Your task to perform on an android device: open app "Move to iOS" Image 0: 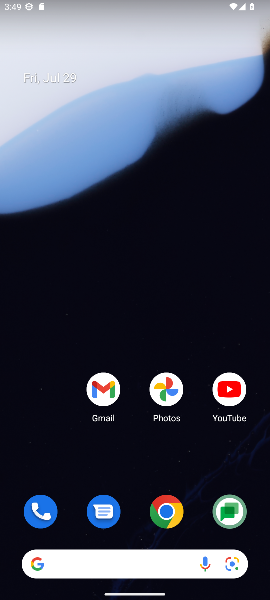
Step 0: drag from (15, 567) to (187, 73)
Your task to perform on an android device: open app "Move to iOS" Image 1: 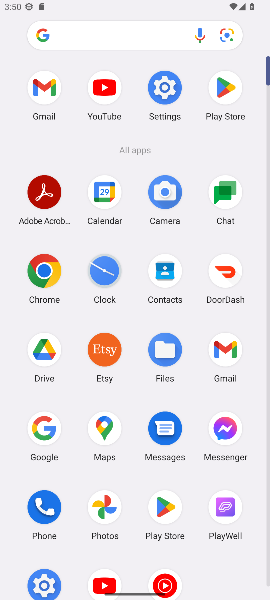
Step 1: click (216, 93)
Your task to perform on an android device: open app "Move to iOS" Image 2: 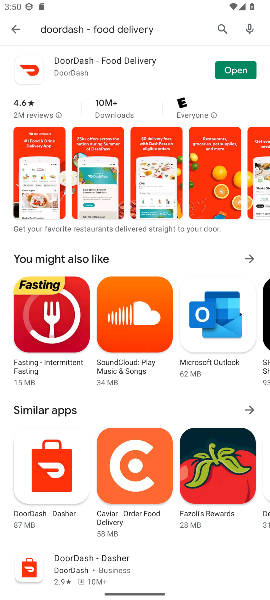
Step 2: click (16, 28)
Your task to perform on an android device: open app "Move to iOS" Image 3: 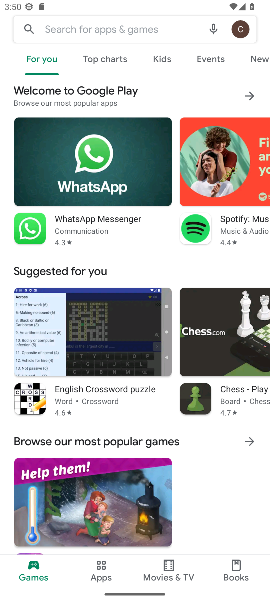
Step 3: click (69, 12)
Your task to perform on an android device: open app "Move to iOS" Image 4: 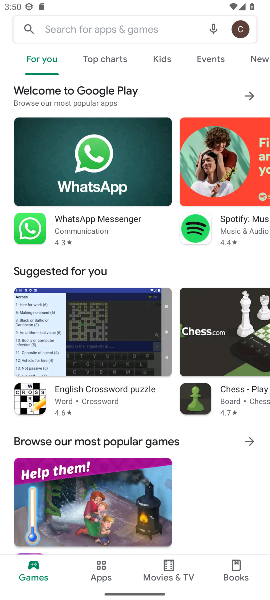
Step 4: click (65, 19)
Your task to perform on an android device: open app "Move to iOS" Image 5: 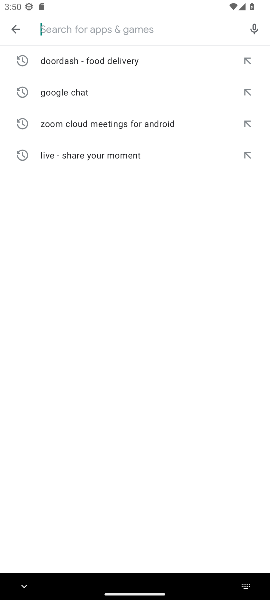
Step 5: type "Move to iOS"
Your task to perform on an android device: open app "Move to iOS" Image 6: 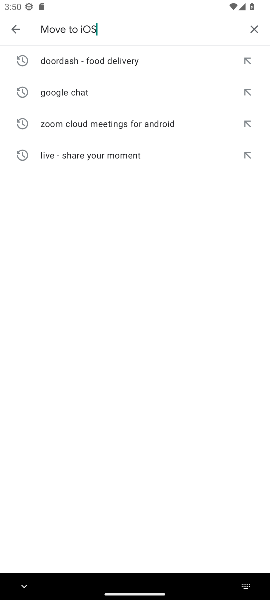
Step 6: type ""
Your task to perform on an android device: open app "Move to iOS" Image 7: 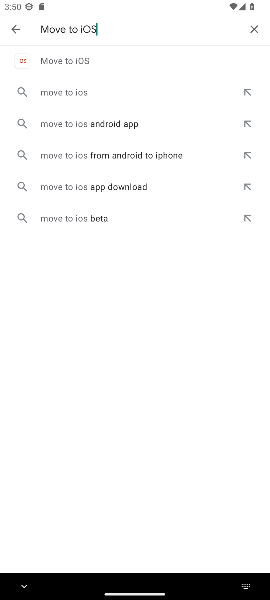
Step 7: click (68, 66)
Your task to perform on an android device: open app "Move to iOS" Image 8: 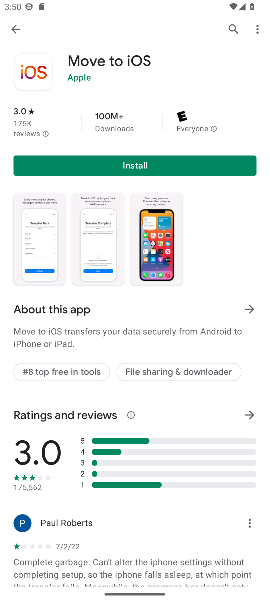
Step 8: click (77, 166)
Your task to perform on an android device: open app "Move to iOS" Image 9: 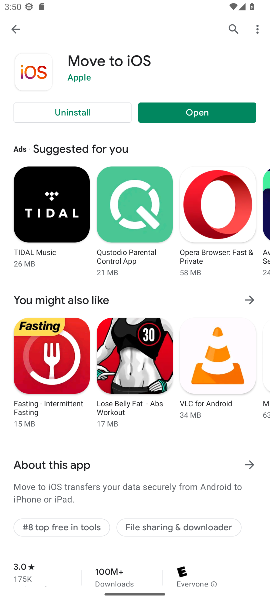
Step 9: task complete